Your task to perform on an android device: check out phone information Image 0: 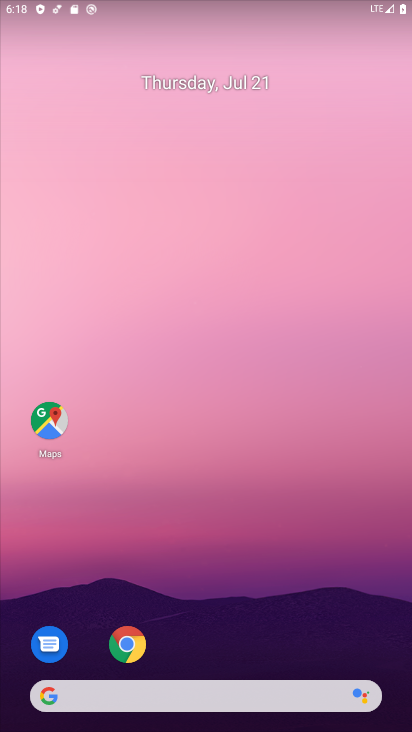
Step 0: drag from (206, 702) to (120, 166)
Your task to perform on an android device: check out phone information Image 1: 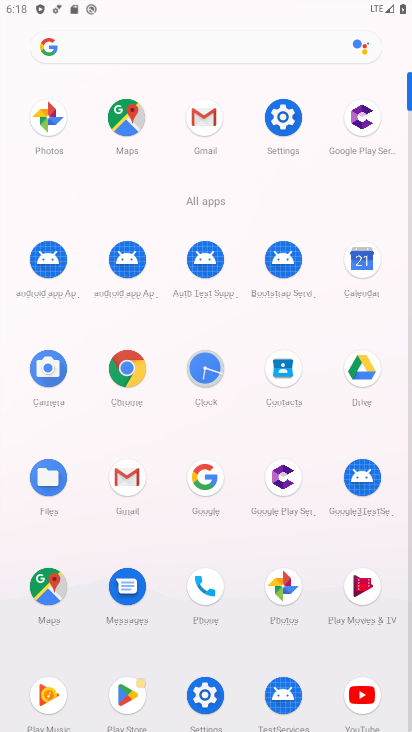
Step 1: click (282, 118)
Your task to perform on an android device: check out phone information Image 2: 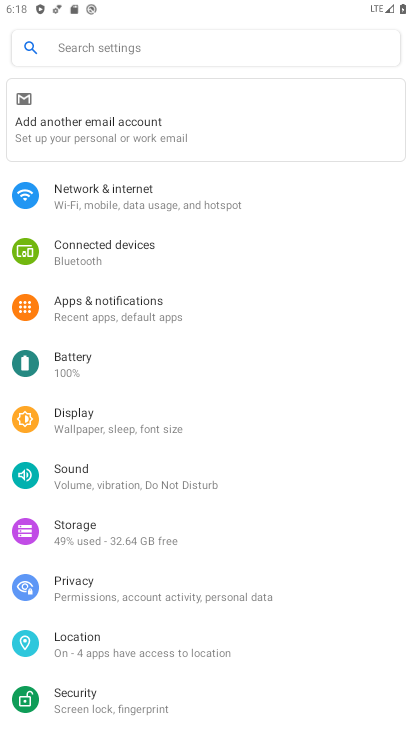
Step 2: drag from (248, 595) to (212, 156)
Your task to perform on an android device: check out phone information Image 3: 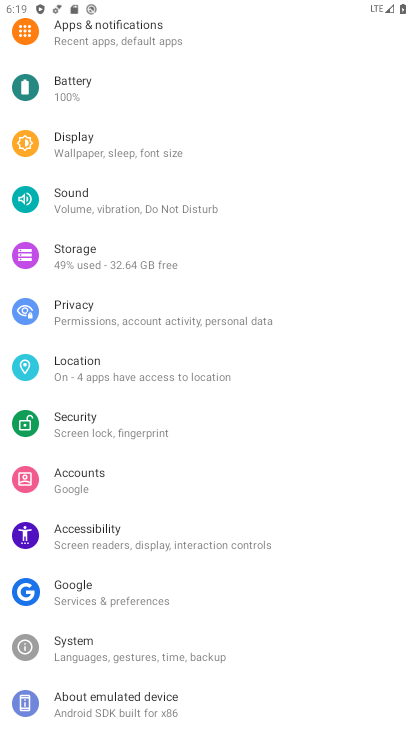
Step 3: drag from (188, 596) to (143, 145)
Your task to perform on an android device: check out phone information Image 4: 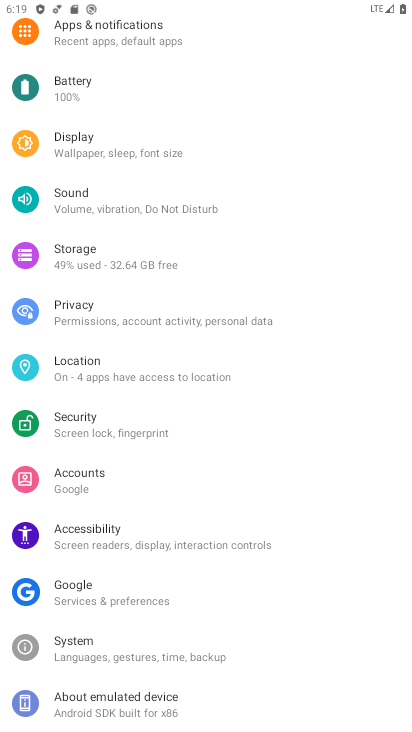
Step 4: click (168, 705)
Your task to perform on an android device: check out phone information Image 5: 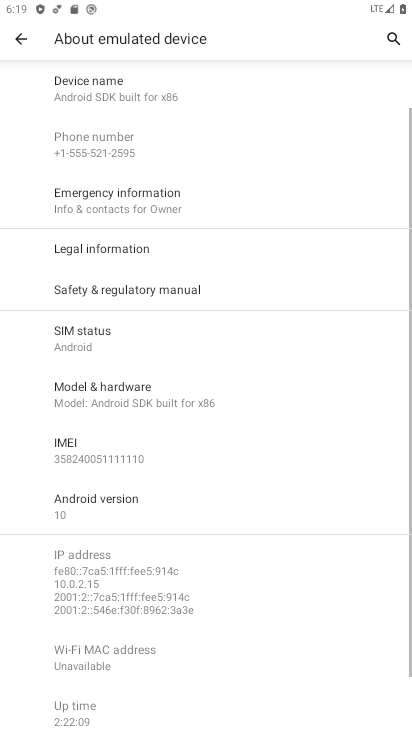
Step 5: task complete